Your task to perform on an android device: Go to Google Image 0: 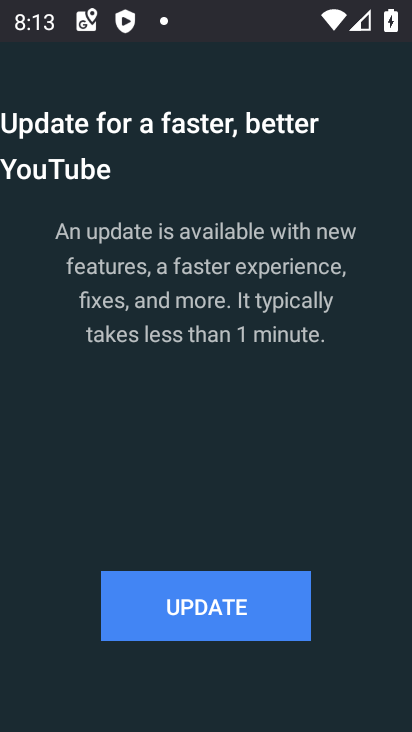
Step 0: press home button
Your task to perform on an android device: Go to Google Image 1: 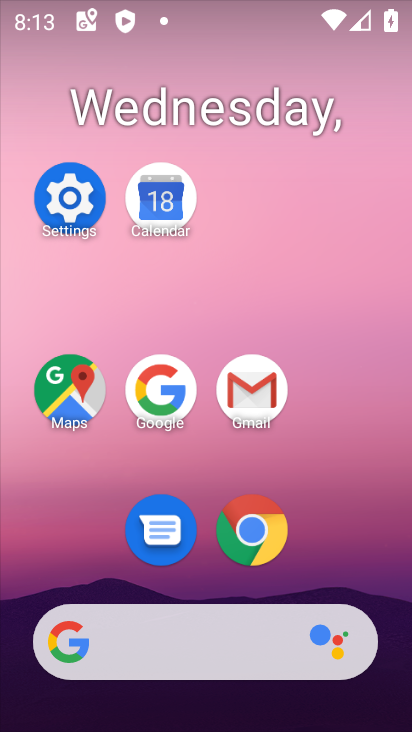
Step 1: click (184, 404)
Your task to perform on an android device: Go to Google Image 2: 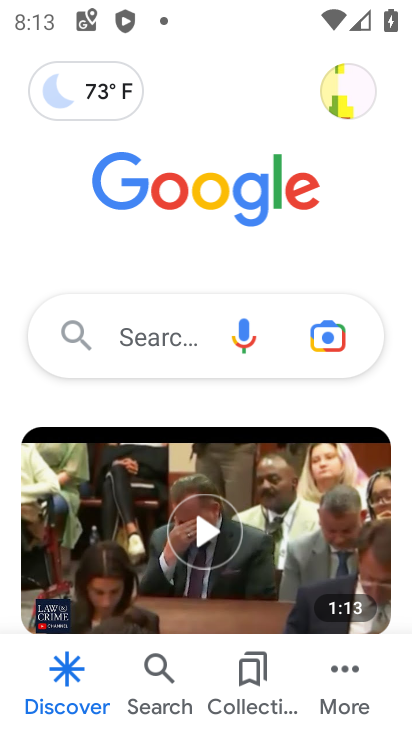
Step 2: task complete